Your task to perform on an android device: toggle sleep mode Image 0: 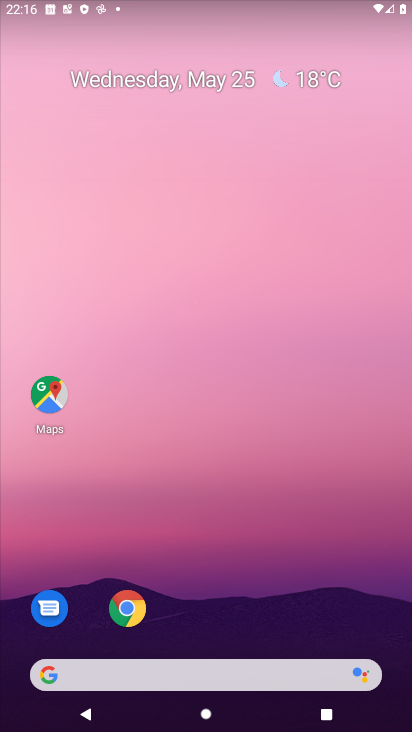
Step 0: drag from (230, 604) to (204, 53)
Your task to perform on an android device: toggle sleep mode Image 1: 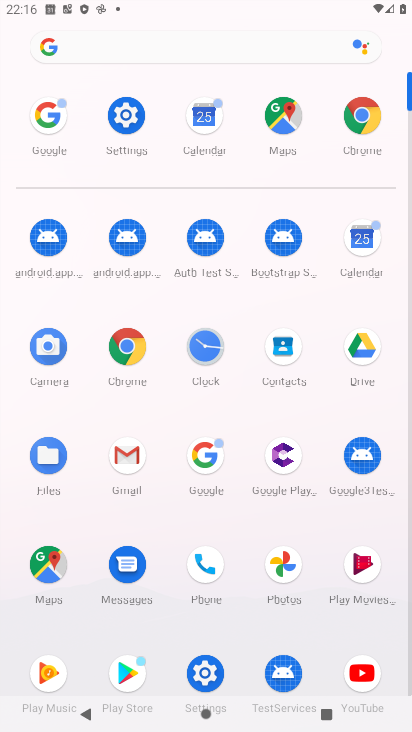
Step 1: click (125, 125)
Your task to perform on an android device: toggle sleep mode Image 2: 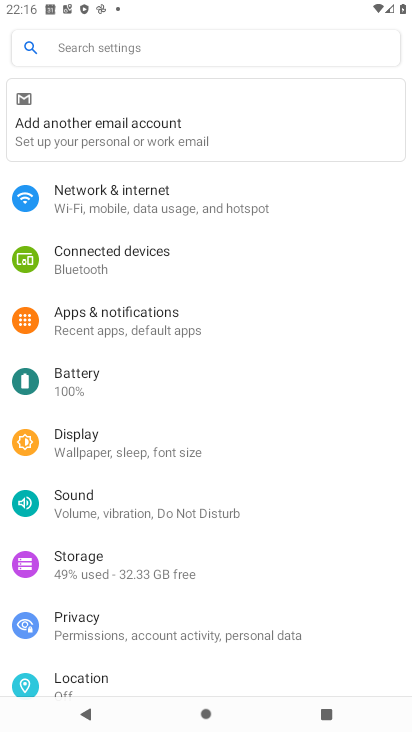
Step 2: click (155, 432)
Your task to perform on an android device: toggle sleep mode Image 3: 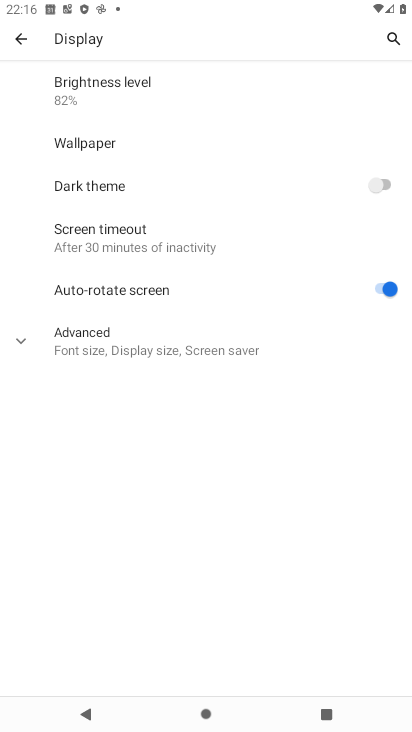
Step 3: task complete